Your task to perform on an android device: Open calendar and show me the third week of next month Image 0: 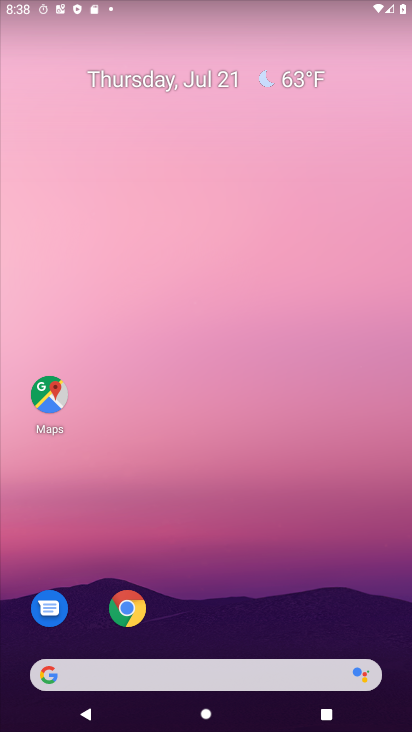
Step 0: press home button
Your task to perform on an android device: Open calendar and show me the third week of next month Image 1: 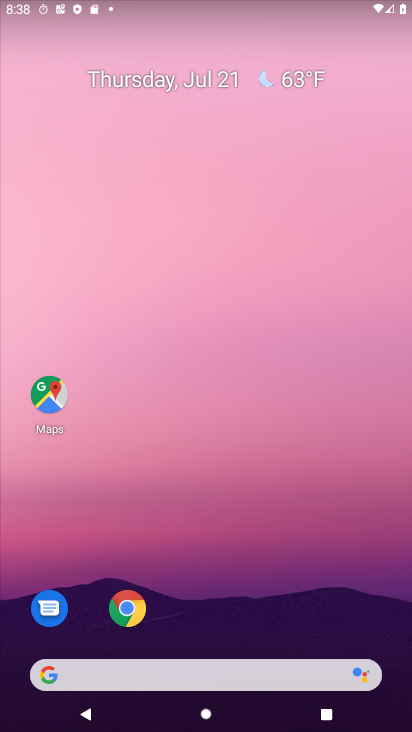
Step 1: drag from (235, 619) to (302, 0)
Your task to perform on an android device: Open calendar and show me the third week of next month Image 2: 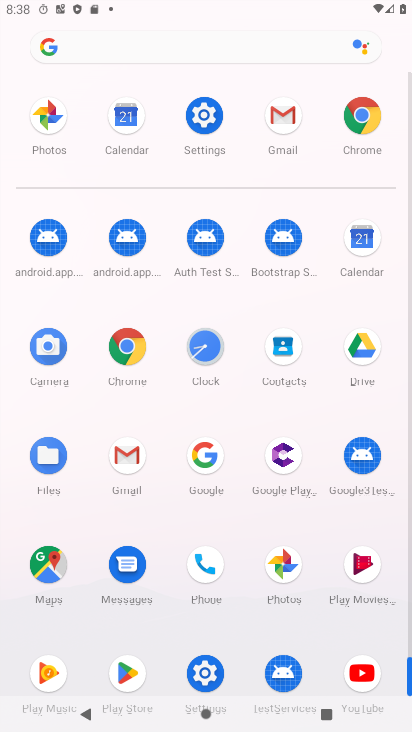
Step 2: click (377, 243)
Your task to perform on an android device: Open calendar and show me the third week of next month Image 3: 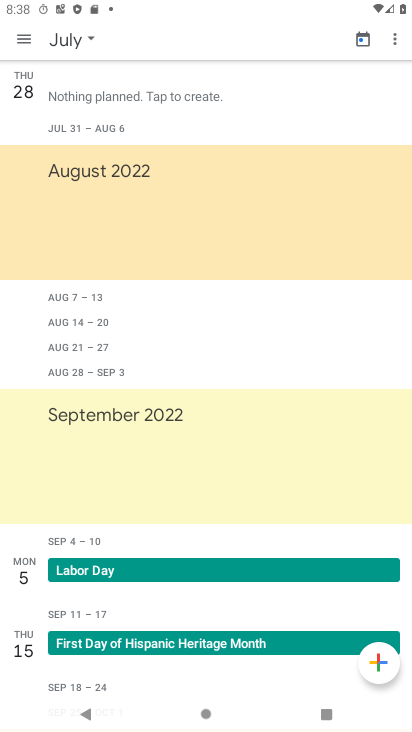
Step 3: click (93, 28)
Your task to perform on an android device: Open calendar and show me the third week of next month Image 4: 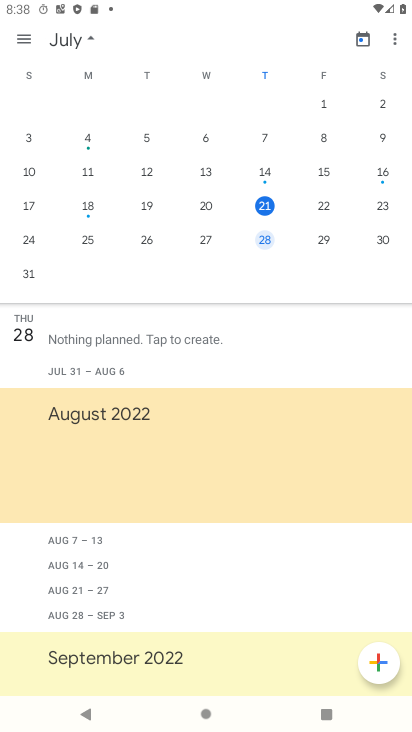
Step 4: drag from (353, 200) to (3, 240)
Your task to perform on an android device: Open calendar and show me the third week of next month Image 5: 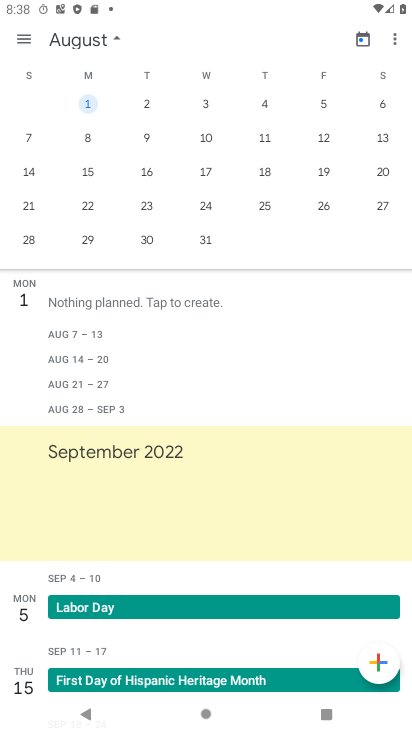
Step 5: click (68, 170)
Your task to perform on an android device: Open calendar and show me the third week of next month Image 6: 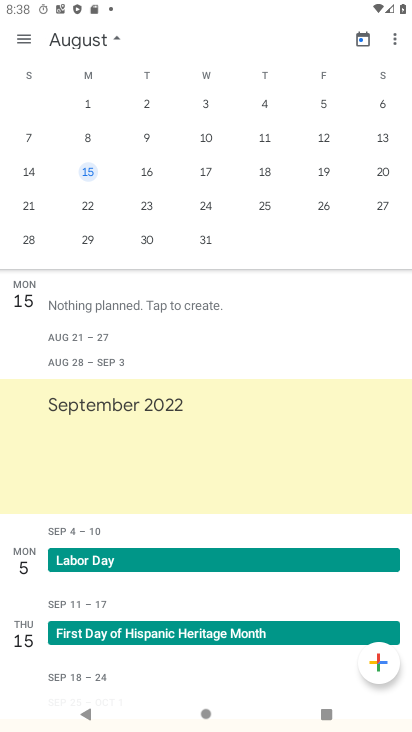
Step 6: task complete